Your task to perform on an android device: turn on the 24-hour format for clock Image 0: 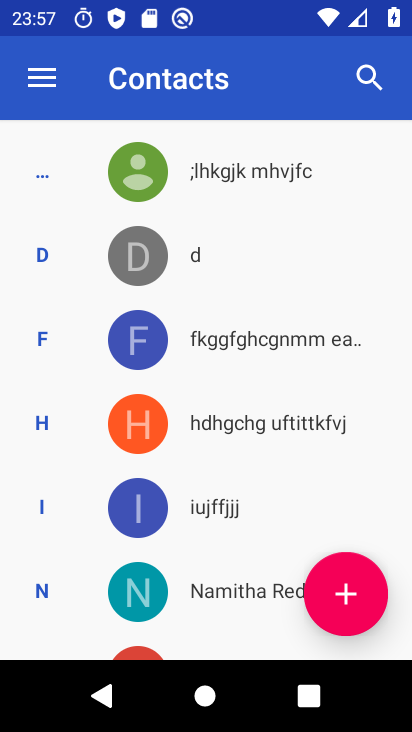
Step 0: press home button
Your task to perform on an android device: turn on the 24-hour format for clock Image 1: 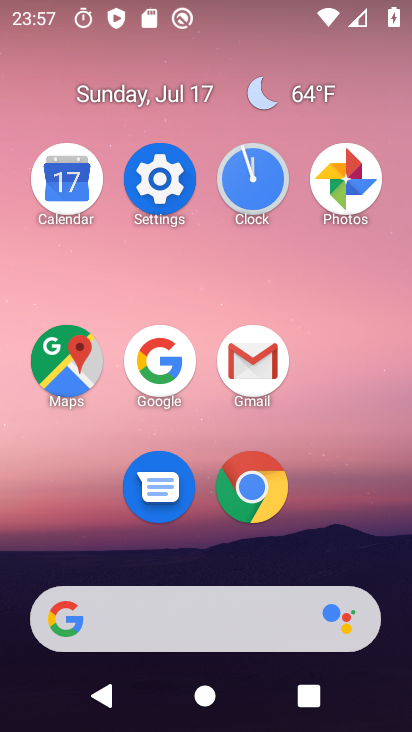
Step 1: click (244, 178)
Your task to perform on an android device: turn on the 24-hour format for clock Image 2: 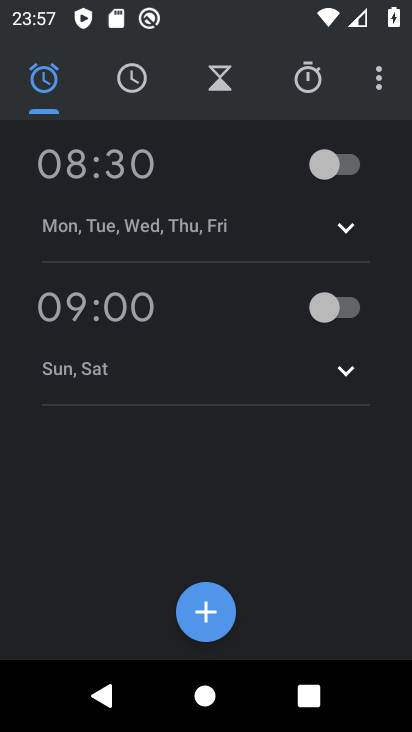
Step 2: click (380, 76)
Your task to perform on an android device: turn on the 24-hour format for clock Image 3: 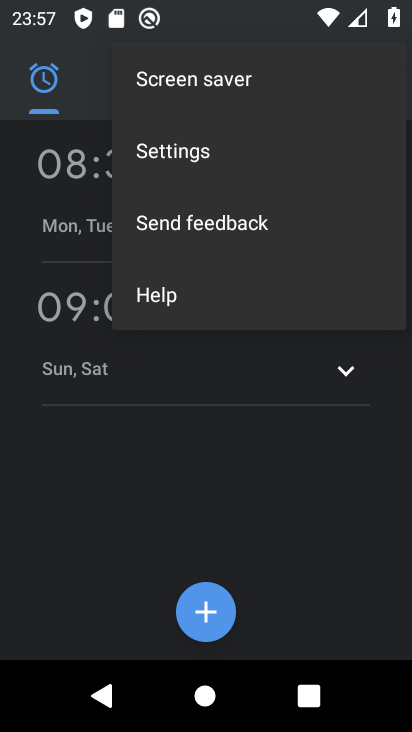
Step 3: click (235, 139)
Your task to perform on an android device: turn on the 24-hour format for clock Image 4: 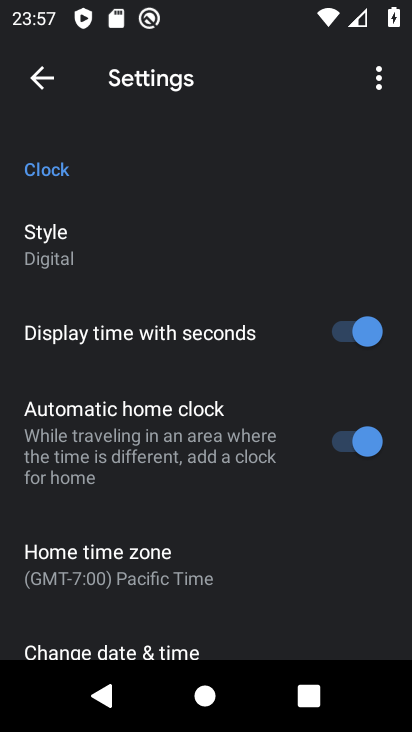
Step 4: click (161, 645)
Your task to perform on an android device: turn on the 24-hour format for clock Image 5: 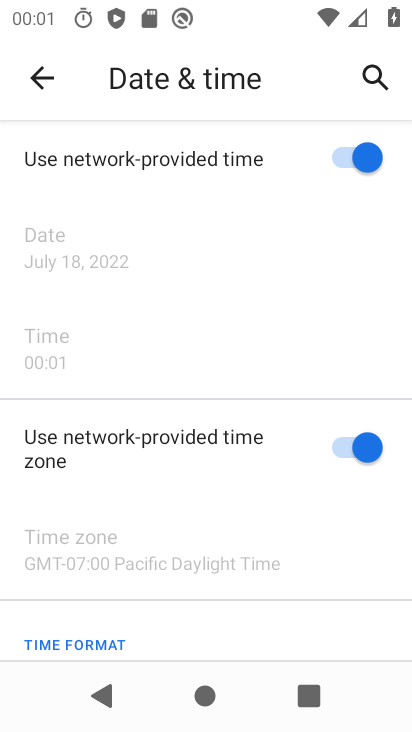
Step 5: press home button
Your task to perform on an android device: turn on the 24-hour format for clock Image 6: 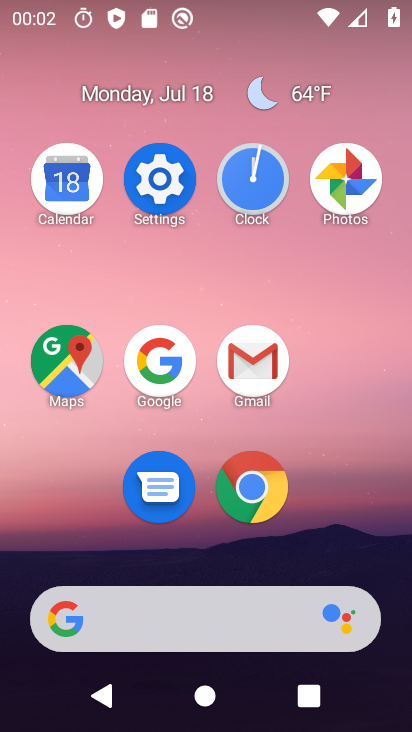
Step 6: click (265, 177)
Your task to perform on an android device: turn on the 24-hour format for clock Image 7: 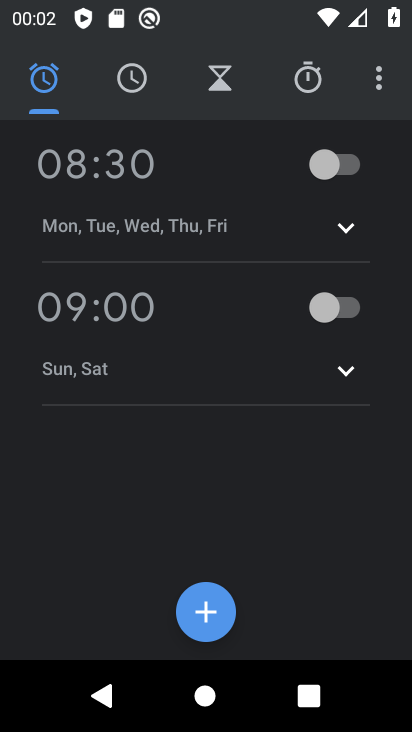
Step 7: click (378, 80)
Your task to perform on an android device: turn on the 24-hour format for clock Image 8: 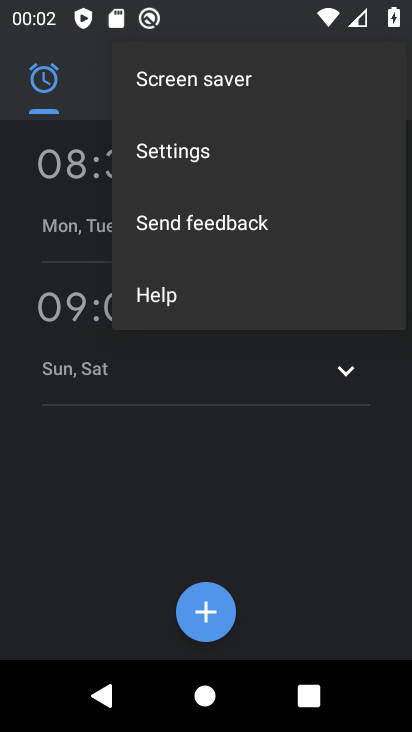
Step 8: click (128, 151)
Your task to perform on an android device: turn on the 24-hour format for clock Image 9: 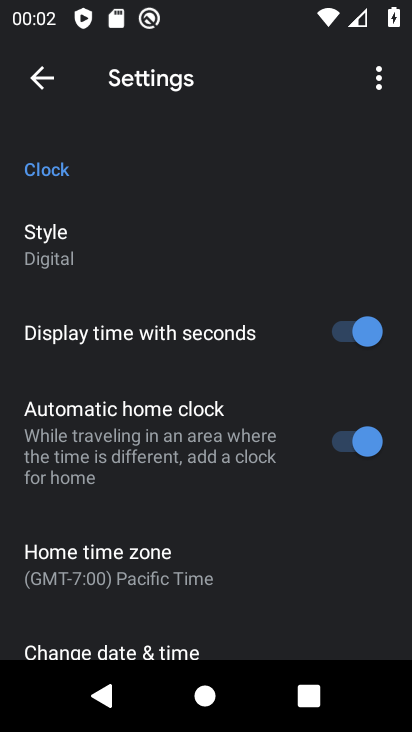
Step 9: drag from (208, 587) to (194, 183)
Your task to perform on an android device: turn on the 24-hour format for clock Image 10: 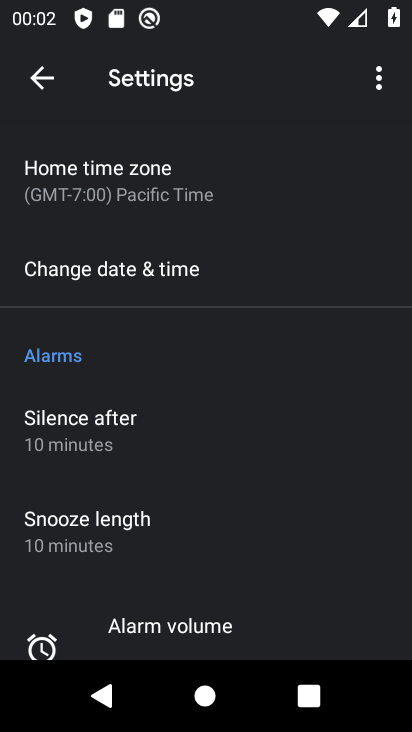
Step 10: click (153, 268)
Your task to perform on an android device: turn on the 24-hour format for clock Image 11: 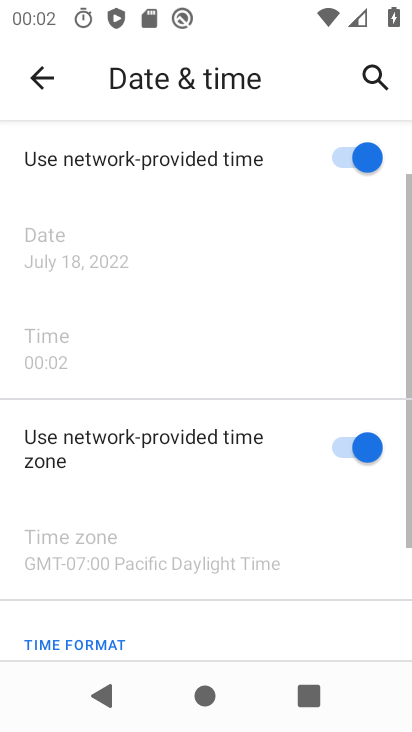
Step 11: task complete